Your task to perform on an android device: Go to Wikipedia Image 0: 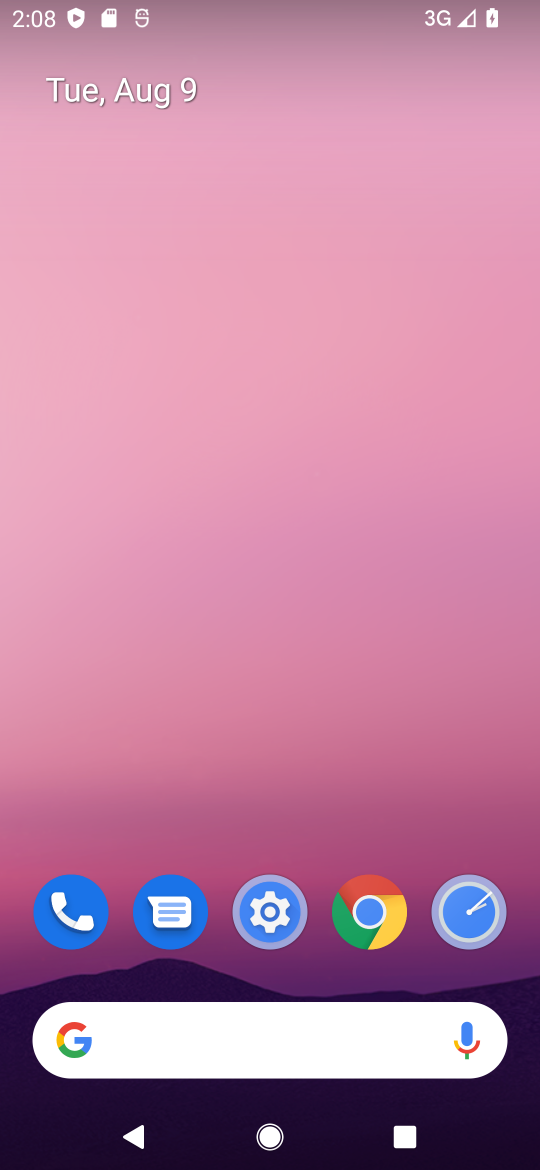
Step 0: click (372, 915)
Your task to perform on an android device: Go to Wikipedia Image 1: 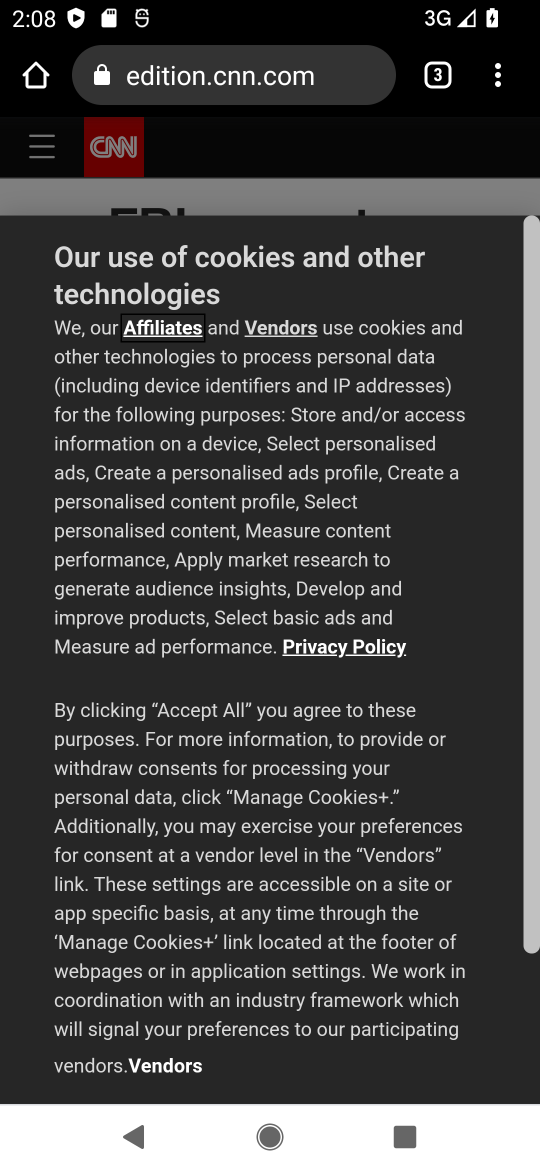
Step 1: click (496, 87)
Your task to perform on an android device: Go to Wikipedia Image 2: 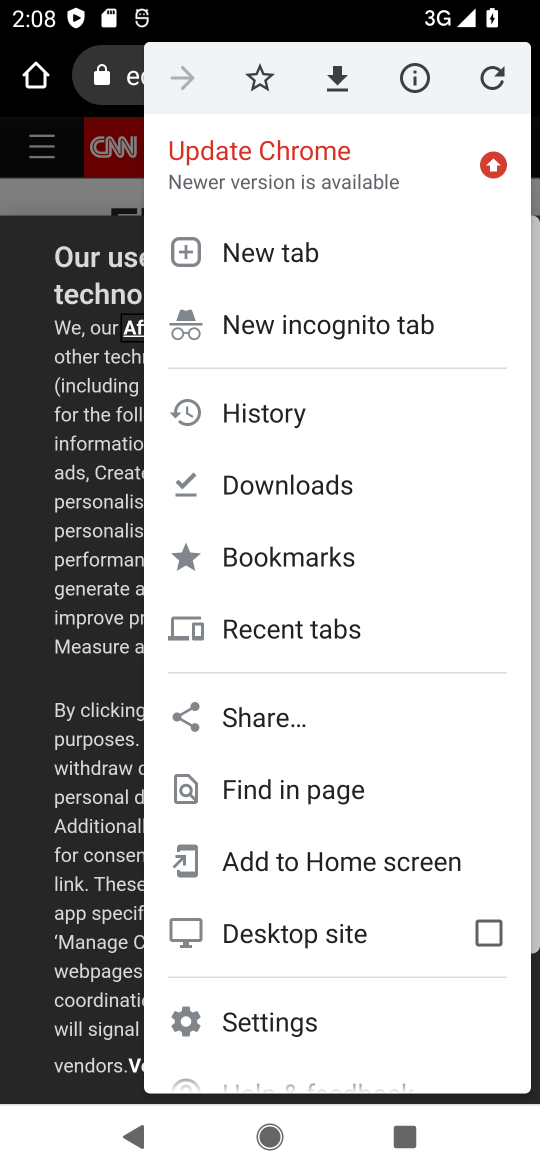
Step 2: click (283, 252)
Your task to perform on an android device: Go to Wikipedia Image 3: 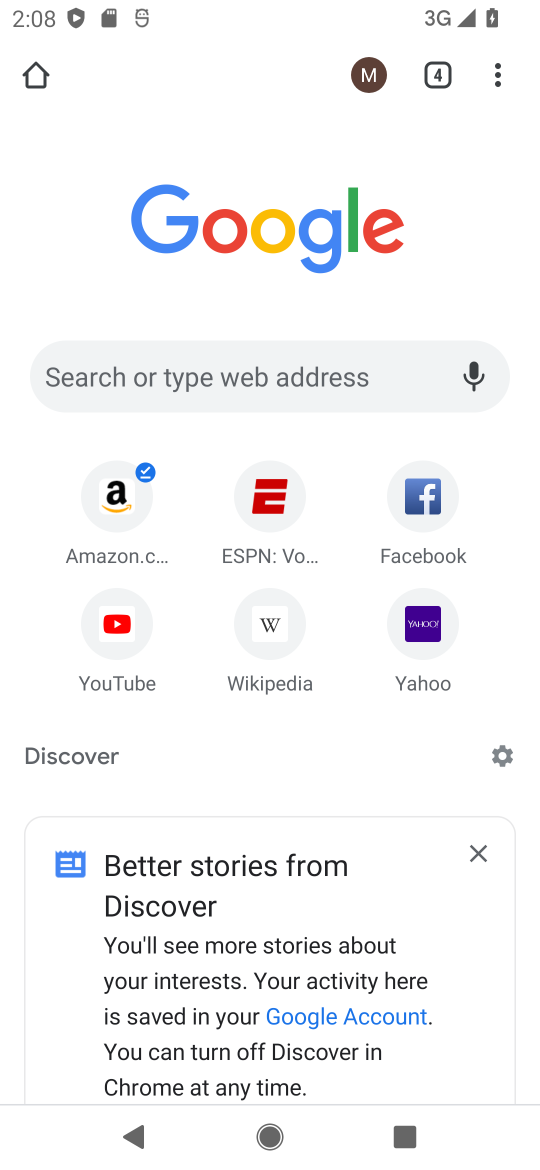
Step 3: click (265, 621)
Your task to perform on an android device: Go to Wikipedia Image 4: 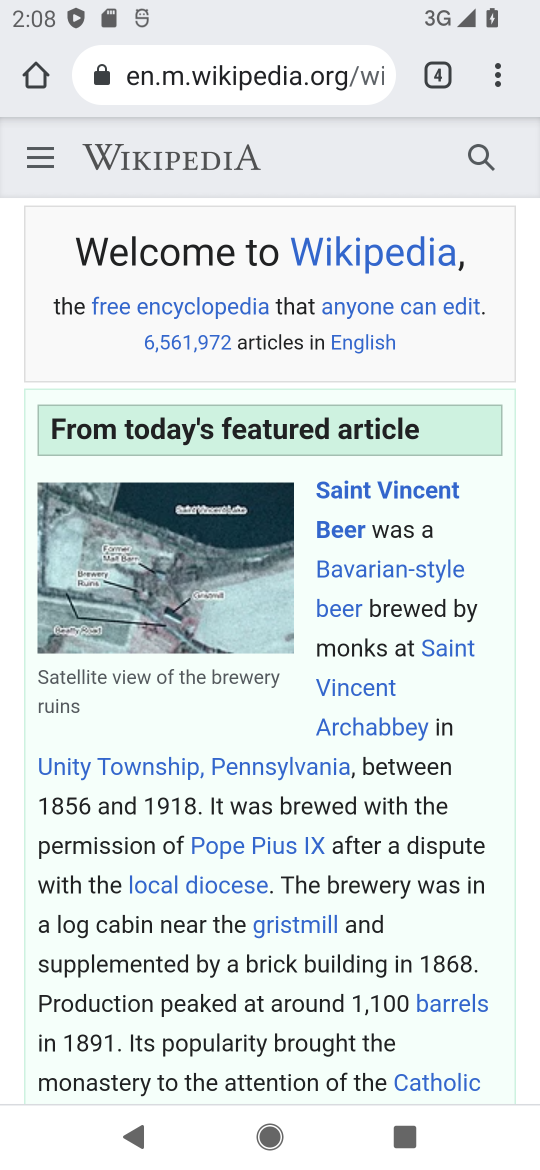
Step 4: task complete